Your task to perform on an android device: change the clock style Image 0: 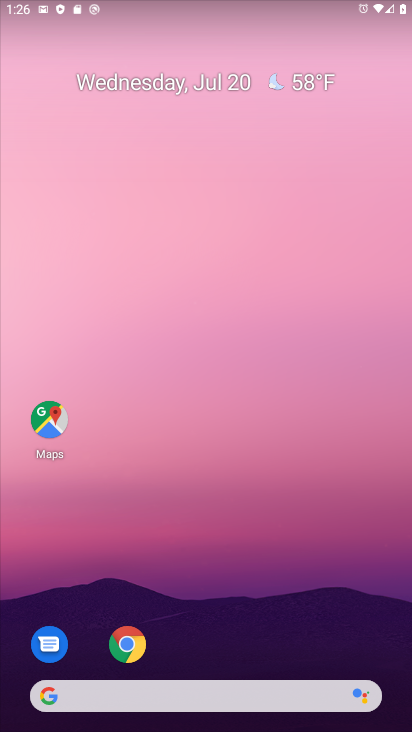
Step 0: drag from (206, 611) to (270, 45)
Your task to perform on an android device: change the clock style Image 1: 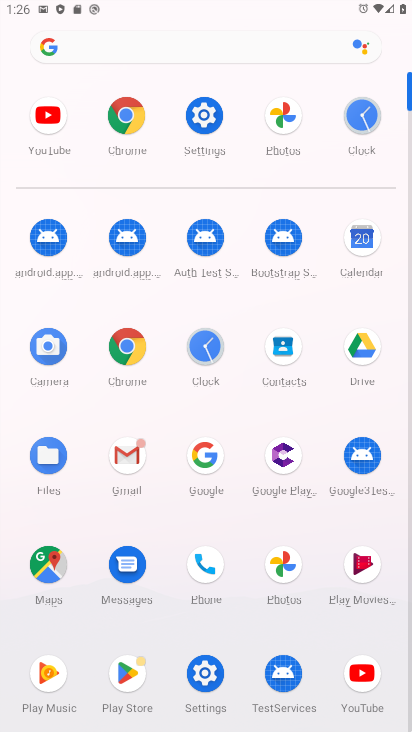
Step 1: click (200, 352)
Your task to perform on an android device: change the clock style Image 2: 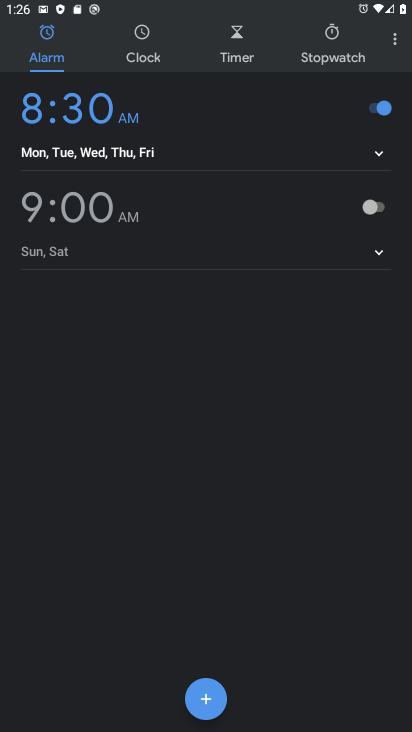
Step 2: click (389, 39)
Your task to perform on an android device: change the clock style Image 3: 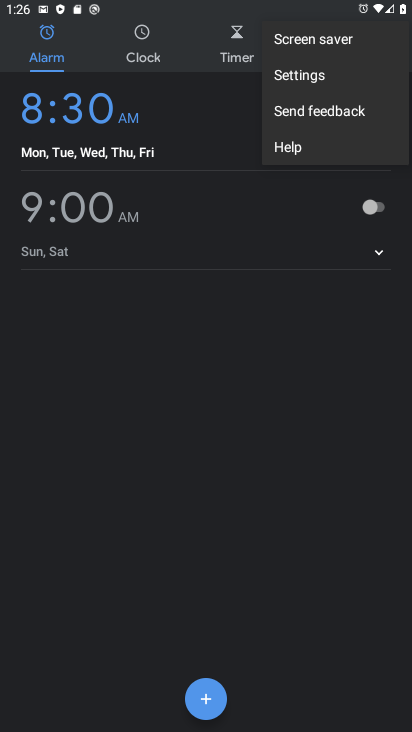
Step 3: click (277, 82)
Your task to perform on an android device: change the clock style Image 4: 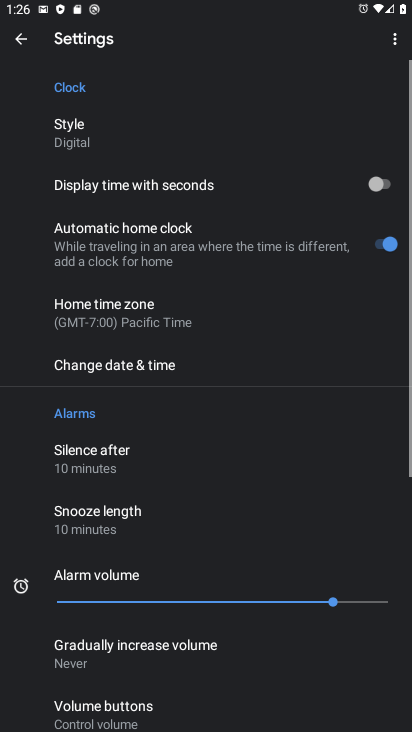
Step 4: click (170, 131)
Your task to perform on an android device: change the clock style Image 5: 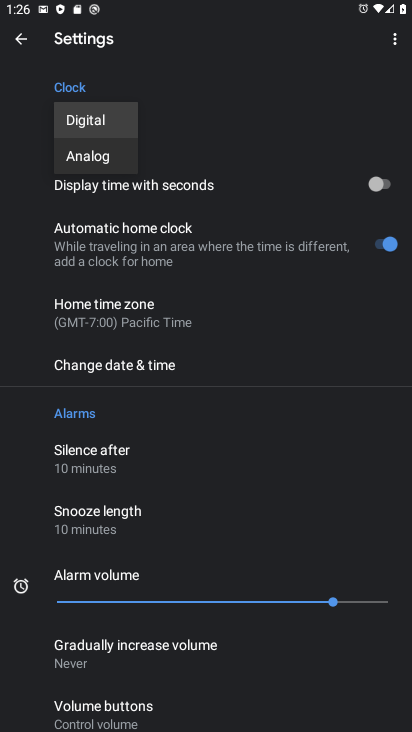
Step 5: click (88, 163)
Your task to perform on an android device: change the clock style Image 6: 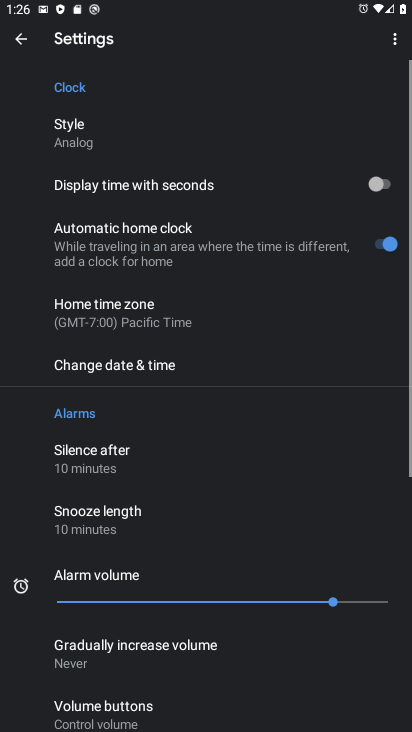
Step 6: task complete